Your task to perform on an android device: Go to Yahoo.com Image 0: 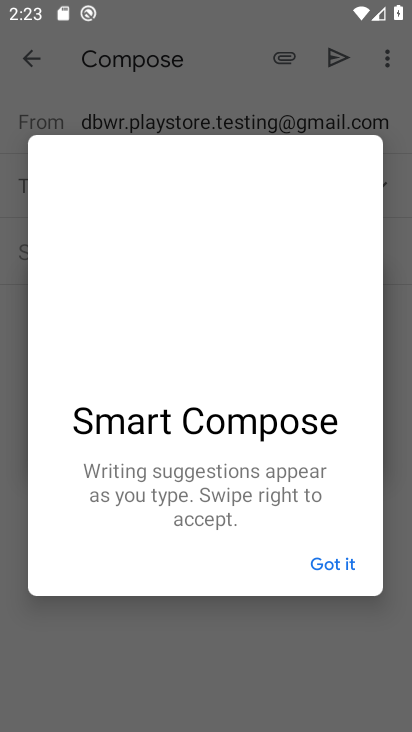
Step 0: press back button
Your task to perform on an android device: Go to Yahoo.com Image 1: 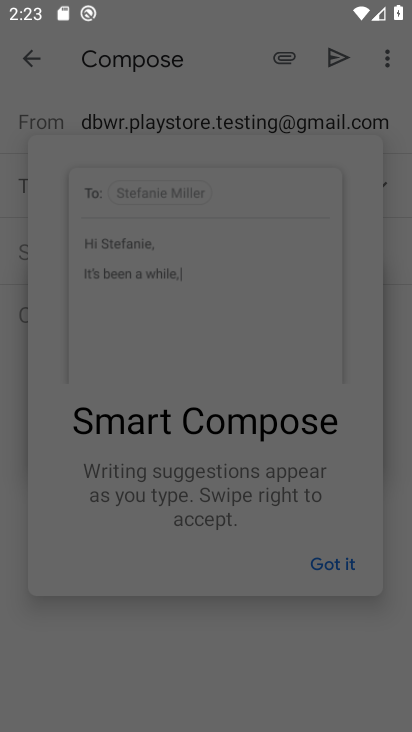
Step 1: press home button
Your task to perform on an android device: Go to Yahoo.com Image 2: 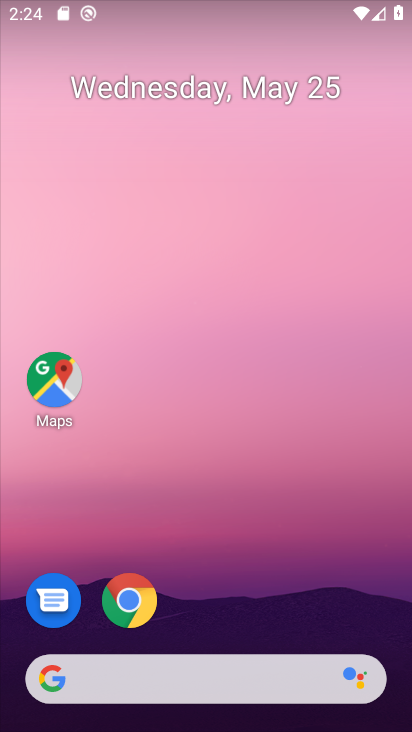
Step 2: click (111, 601)
Your task to perform on an android device: Go to Yahoo.com Image 3: 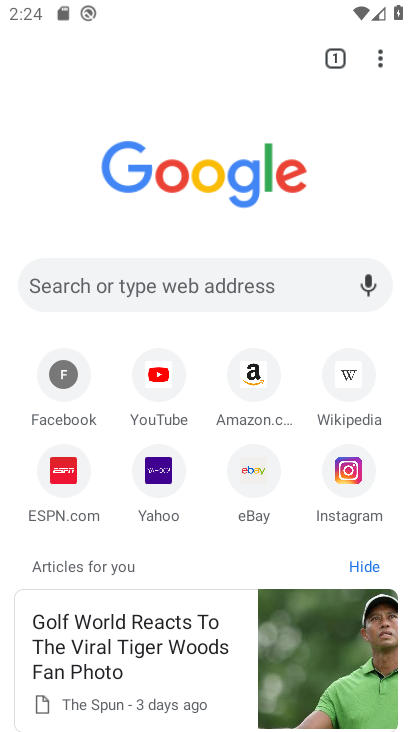
Step 3: click (164, 478)
Your task to perform on an android device: Go to Yahoo.com Image 4: 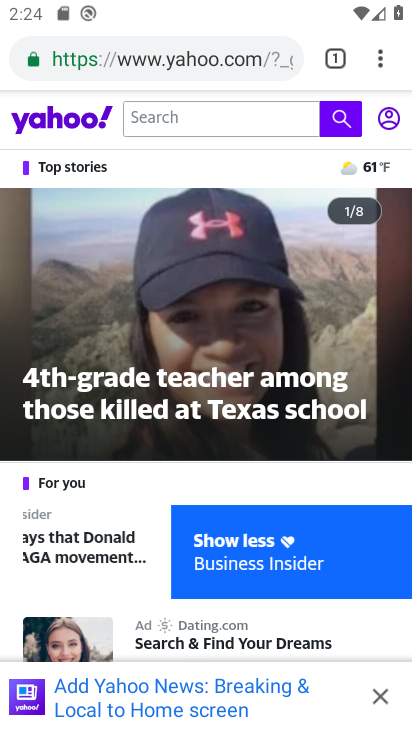
Step 4: task complete